Your task to perform on an android device: Check the news Image 0: 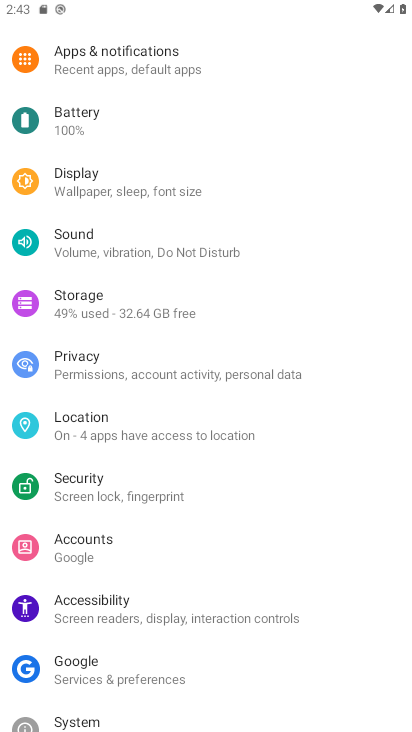
Step 0: press home button
Your task to perform on an android device: Check the news Image 1: 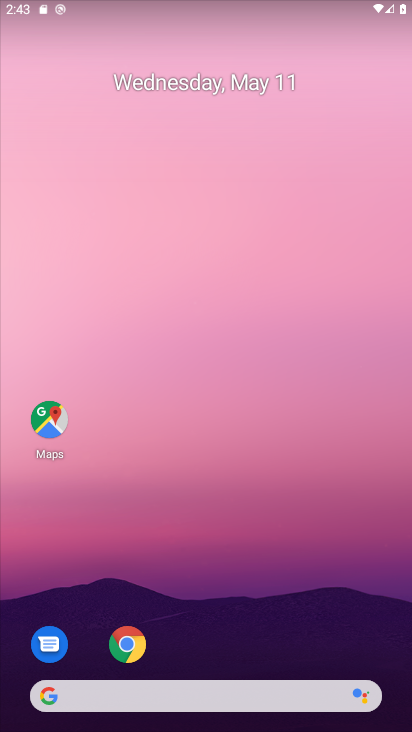
Step 1: drag from (226, 666) to (245, 18)
Your task to perform on an android device: Check the news Image 2: 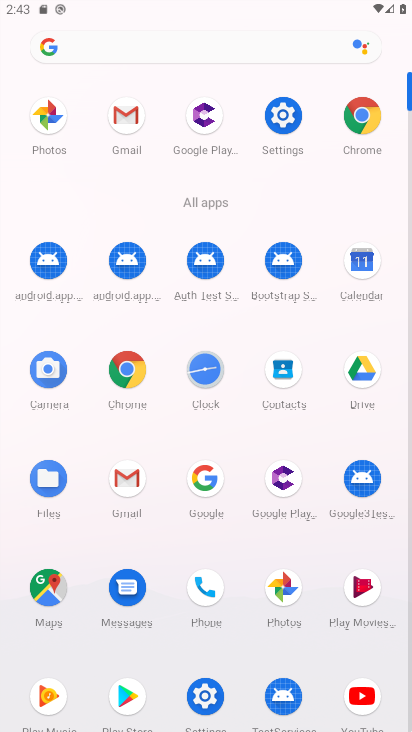
Step 2: click (207, 485)
Your task to perform on an android device: Check the news Image 3: 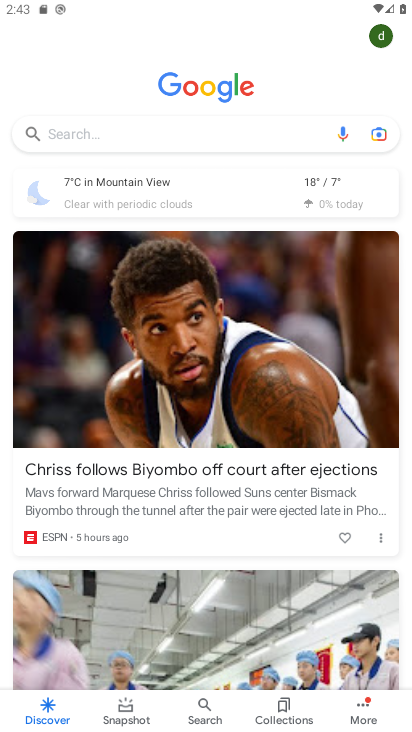
Step 3: task complete